Your task to perform on an android device: turn on showing notifications on the lock screen Image 0: 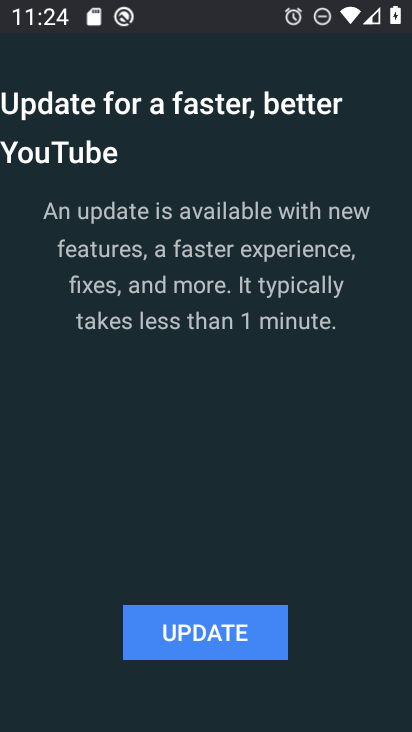
Step 0: drag from (163, 70) to (118, 17)
Your task to perform on an android device: turn on showing notifications on the lock screen Image 1: 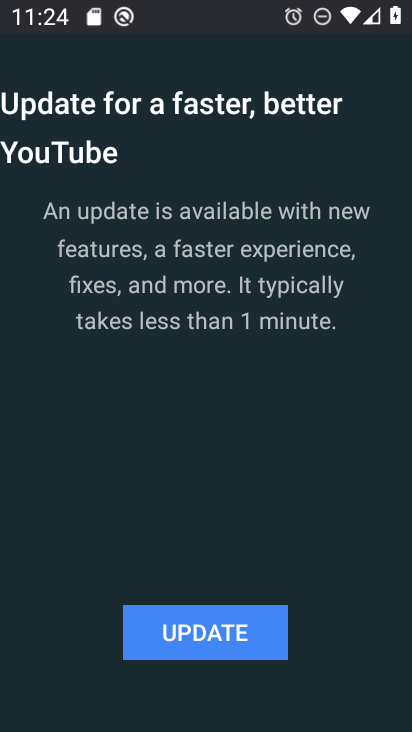
Step 1: press back button
Your task to perform on an android device: turn on showing notifications on the lock screen Image 2: 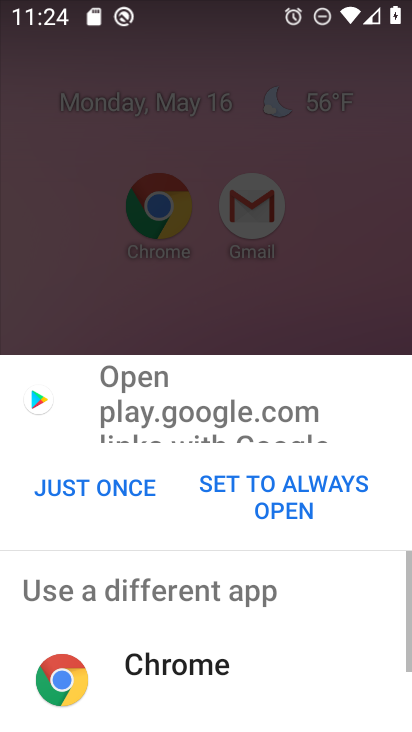
Step 2: click (344, 272)
Your task to perform on an android device: turn on showing notifications on the lock screen Image 3: 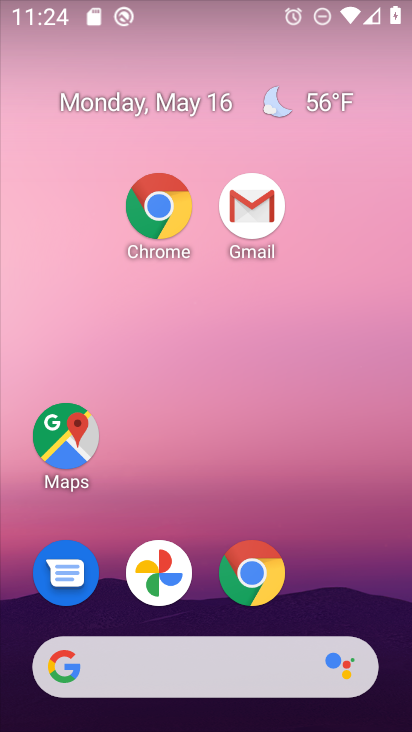
Step 3: drag from (356, 633) to (148, 16)
Your task to perform on an android device: turn on showing notifications on the lock screen Image 4: 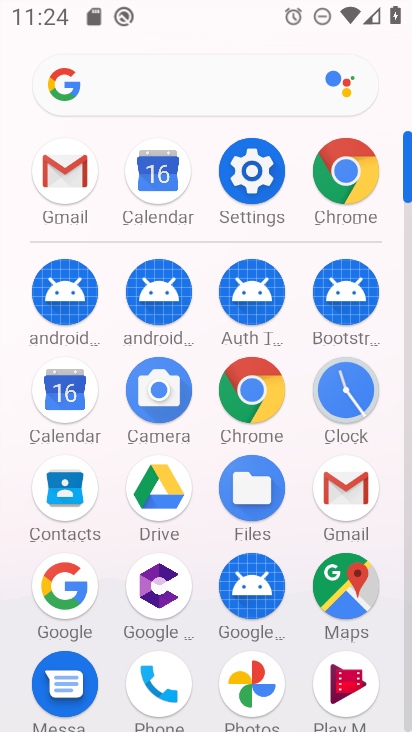
Step 4: click (243, 174)
Your task to perform on an android device: turn on showing notifications on the lock screen Image 5: 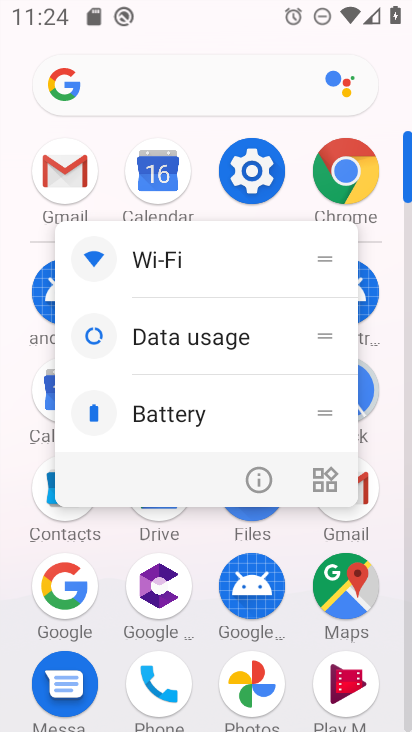
Step 5: click (252, 180)
Your task to perform on an android device: turn on showing notifications on the lock screen Image 6: 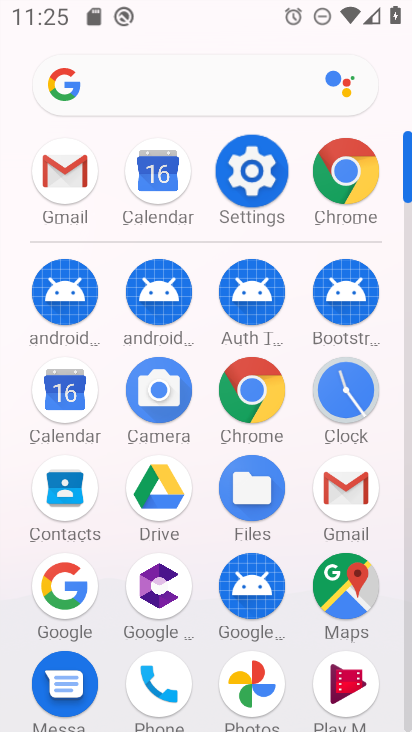
Step 6: click (252, 180)
Your task to perform on an android device: turn on showing notifications on the lock screen Image 7: 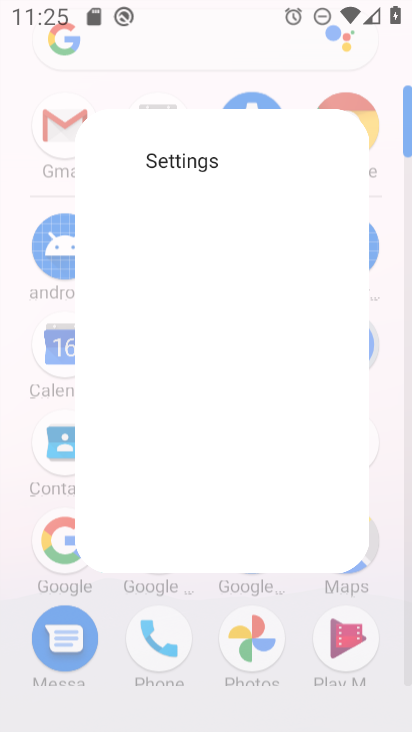
Step 7: click (252, 180)
Your task to perform on an android device: turn on showing notifications on the lock screen Image 8: 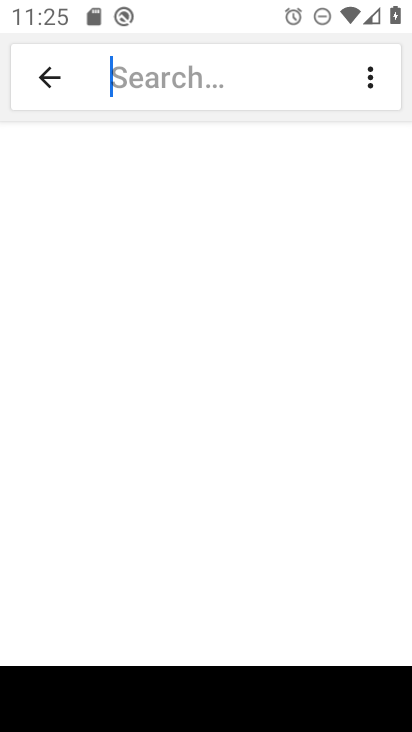
Step 8: click (43, 57)
Your task to perform on an android device: turn on showing notifications on the lock screen Image 9: 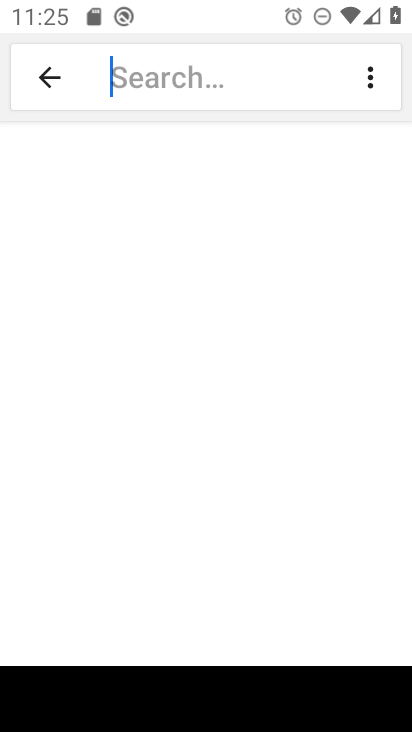
Step 9: click (45, 62)
Your task to perform on an android device: turn on showing notifications on the lock screen Image 10: 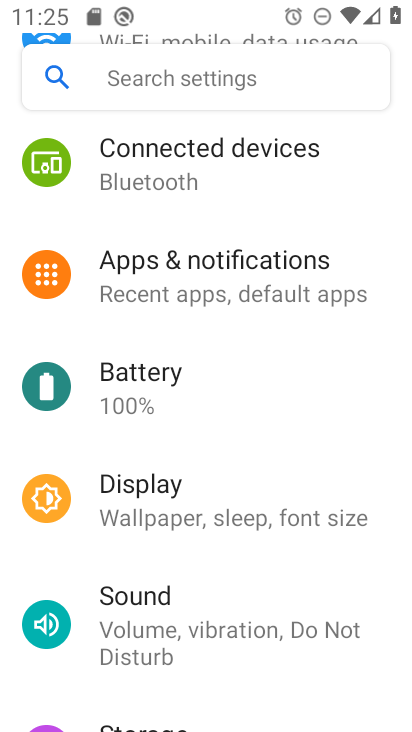
Step 10: click (202, 185)
Your task to perform on an android device: turn on showing notifications on the lock screen Image 11: 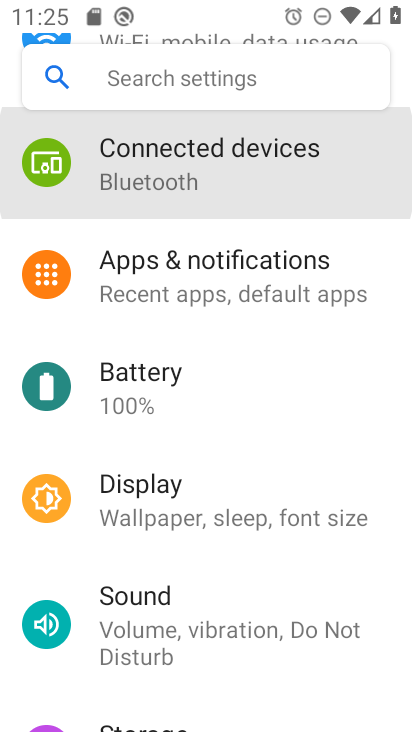
Step 11: click (217, 178)
Your task to perform on an android device: turn on showing notifications on the lock screen Image 12: 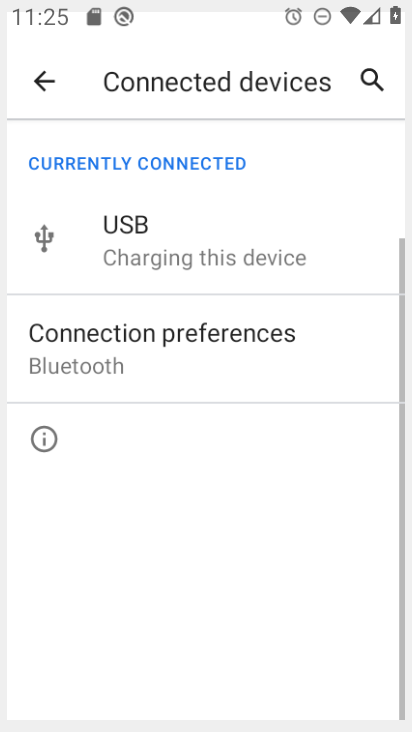
Step 12: click (223, 177)
Your task to perform on an android device: turn on showing notifications on the lock screen Image 13: 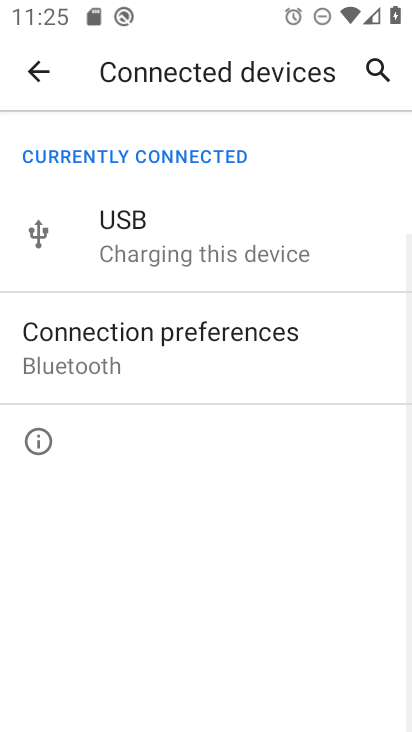
Step 13: click (222, 181)
Your task to perform on an android device: turn on showing notifications on the lock screen Image 14: 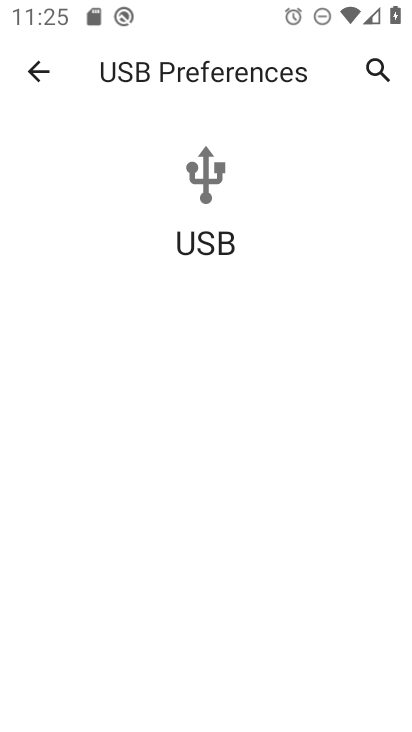
Step 14: click (44, 67)
Your task to perform on an android device: turn on showing notifications on the lock screen Image 15: 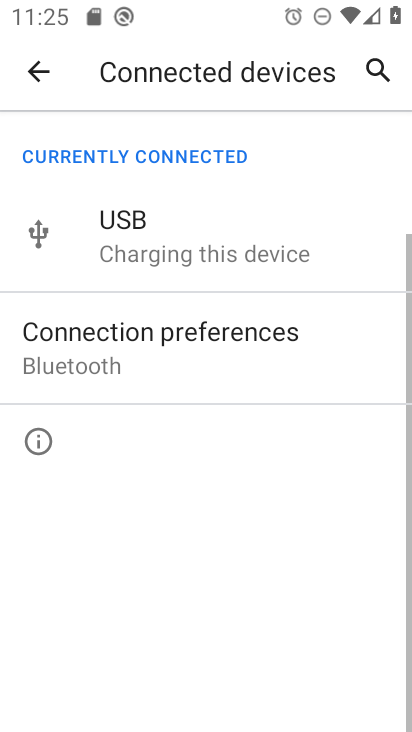
Step 15: click (41, 80)
Your task to perform on an android device: turn on showing notifications on the lock screen Image 16: 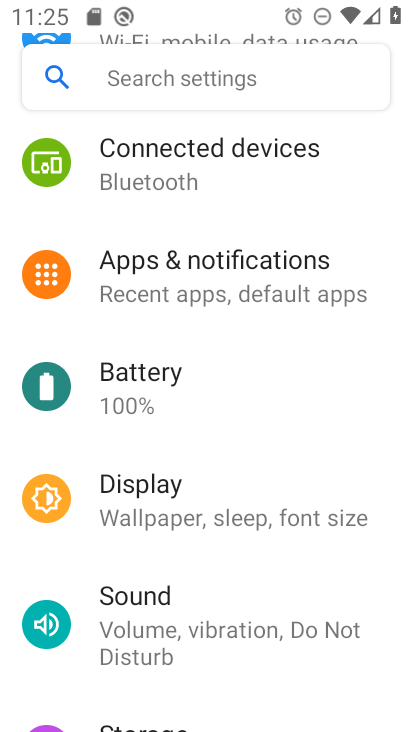
Step 16: click (177, 281)
Your task to perform on an android device: turn on showing notifications on the lock screen Image 17: 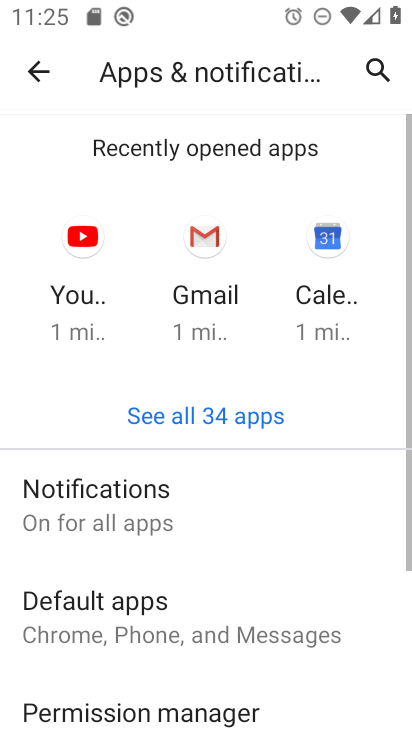
Step 17: click (99, 507)
Your task to perform on an android device: turn on showing notifications on the lock screen Image 18: 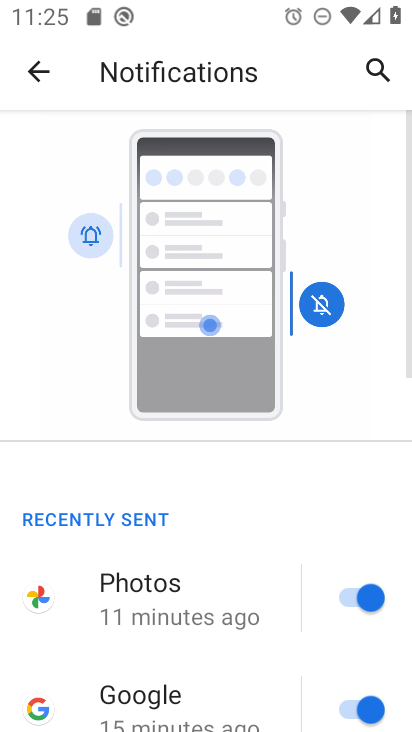
Step 18: drag from (258, 592) to (114, 77)
Your task to perform on an android device: turn on showing notifications on the lock screen Image 19: 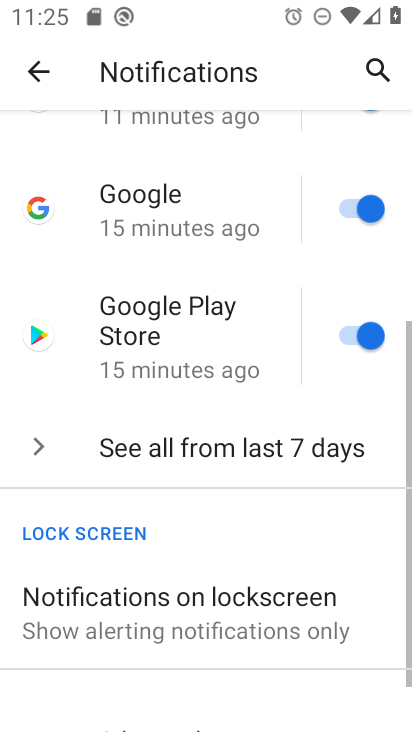
Step 19: drag from (230, 458) to (208, 146)
Your task to perform on an android device: turn on showing notifications on the lock screen Image 20: 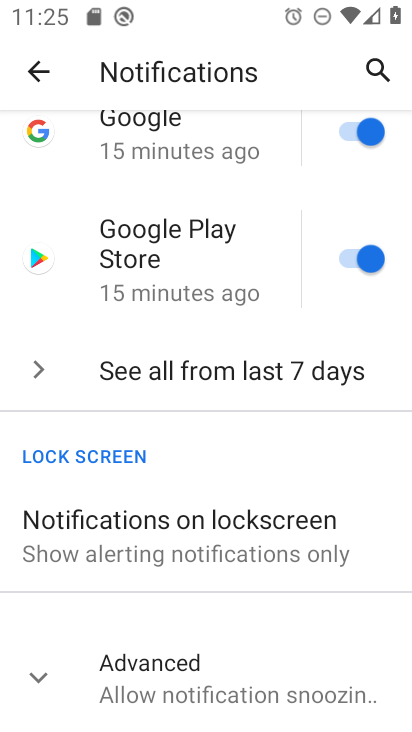
Step 20: click (226, 538)
Your task to perform on an android device: turn on showing notifications on the lock screen Image 21: 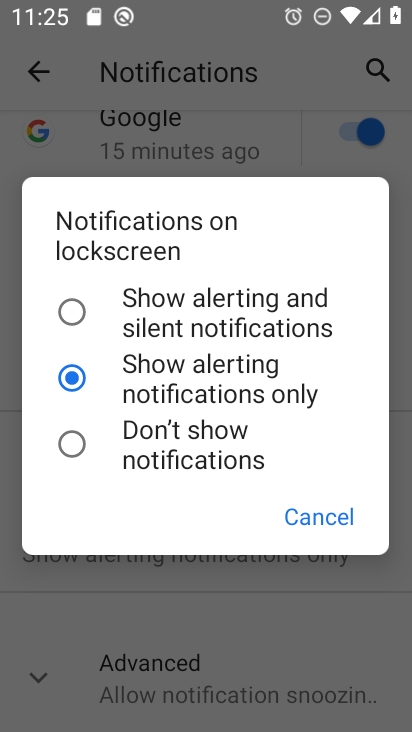
Step 21: click (70, 313)
Your task to perform on an android device: turn on showing notifications on the lock screen Image 22: 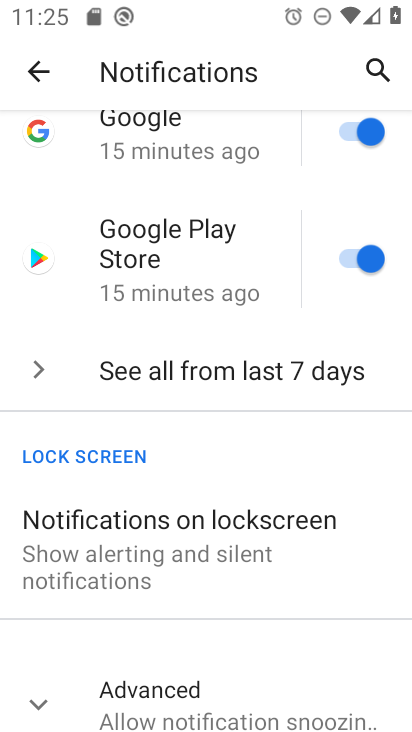
Step 22: task complete